Your task to perform on an android device: Clear the shopping cart on target.com. Search for "razer naga" on target.com, select the first entry, and add it to the cart. Image 0: 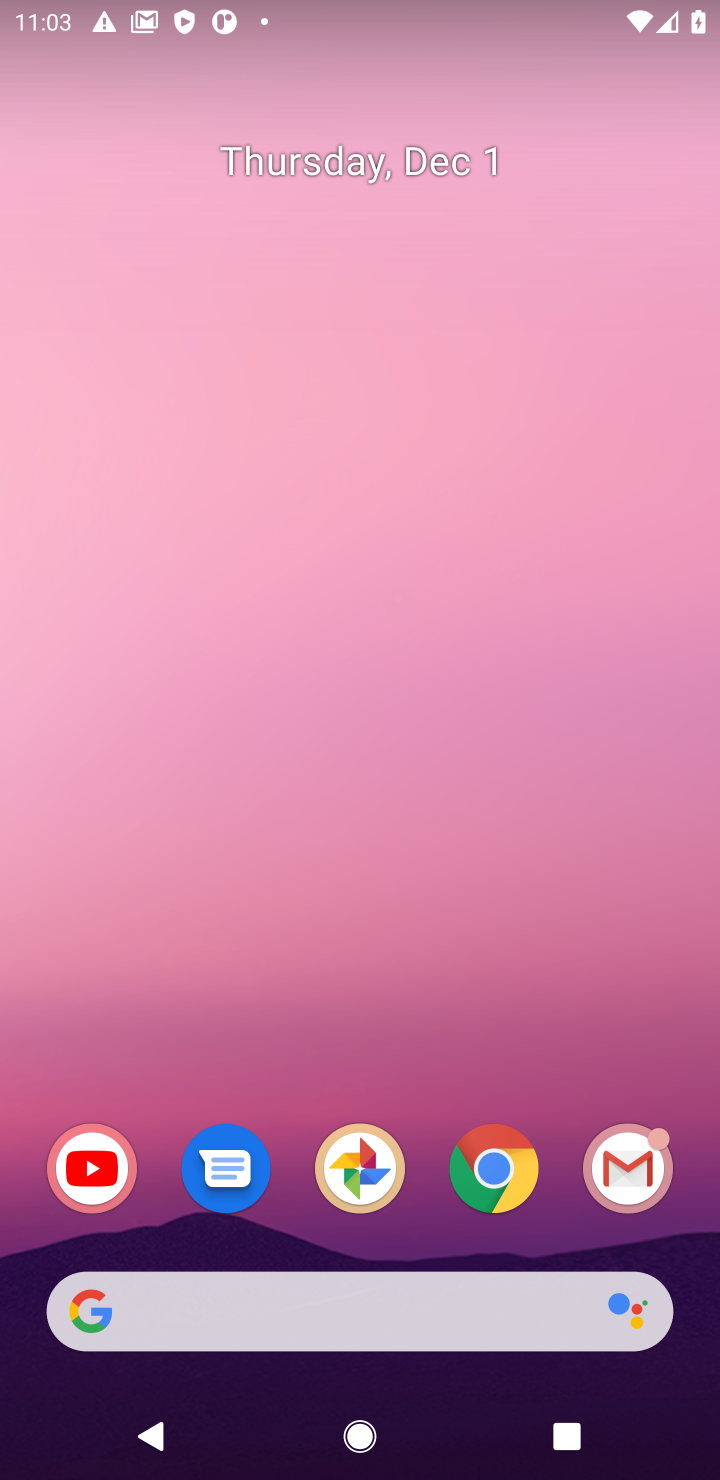
Step 0: click (505, 1179)
Your task to perform on an android device: Clear the shopping cart on target.com. Search for "razer naga" on target.com, select the first entry, and add it to the cart. Image 1: 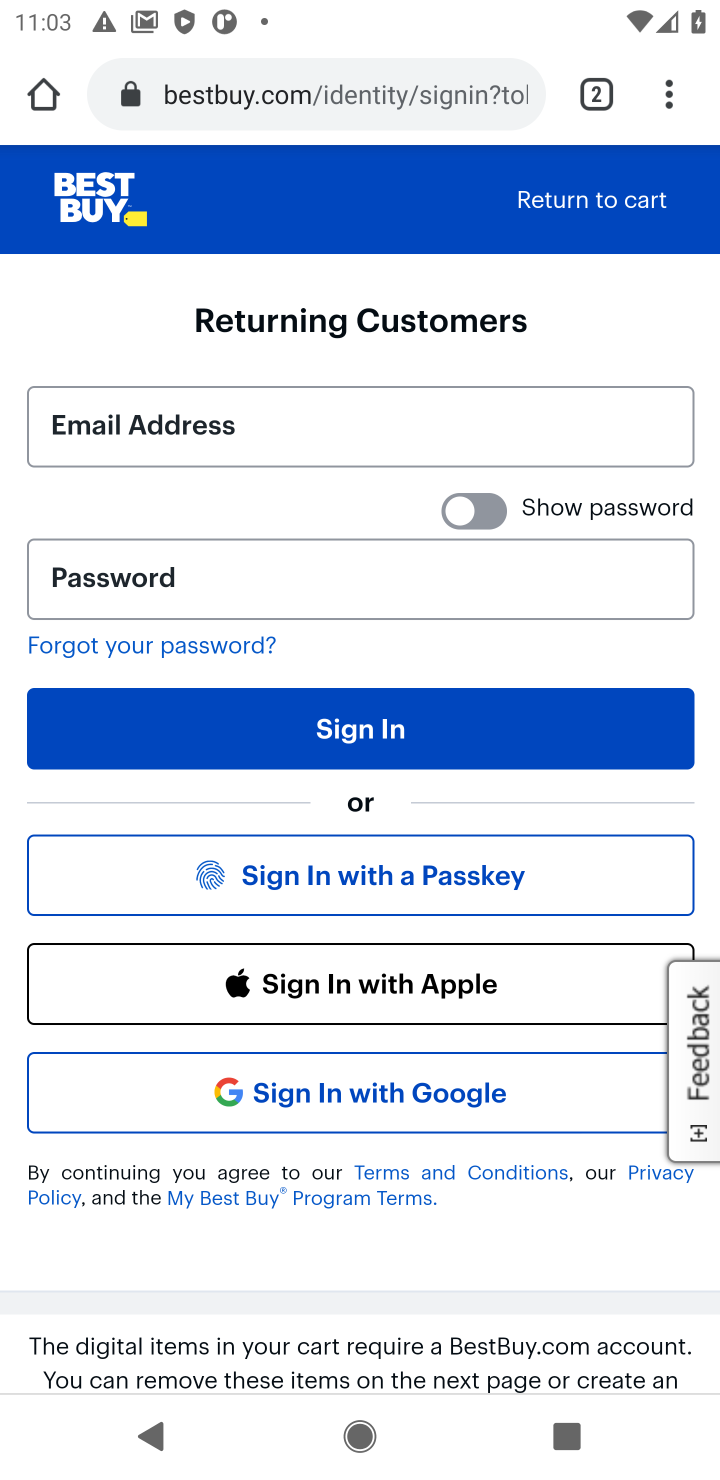
Step 1: click (287, 109)
Your task to perform on an android device: Clear the shopping cart on target.com. Search for "razer naga" on target.com, select the first entry, and add it to the cart. Image 2: 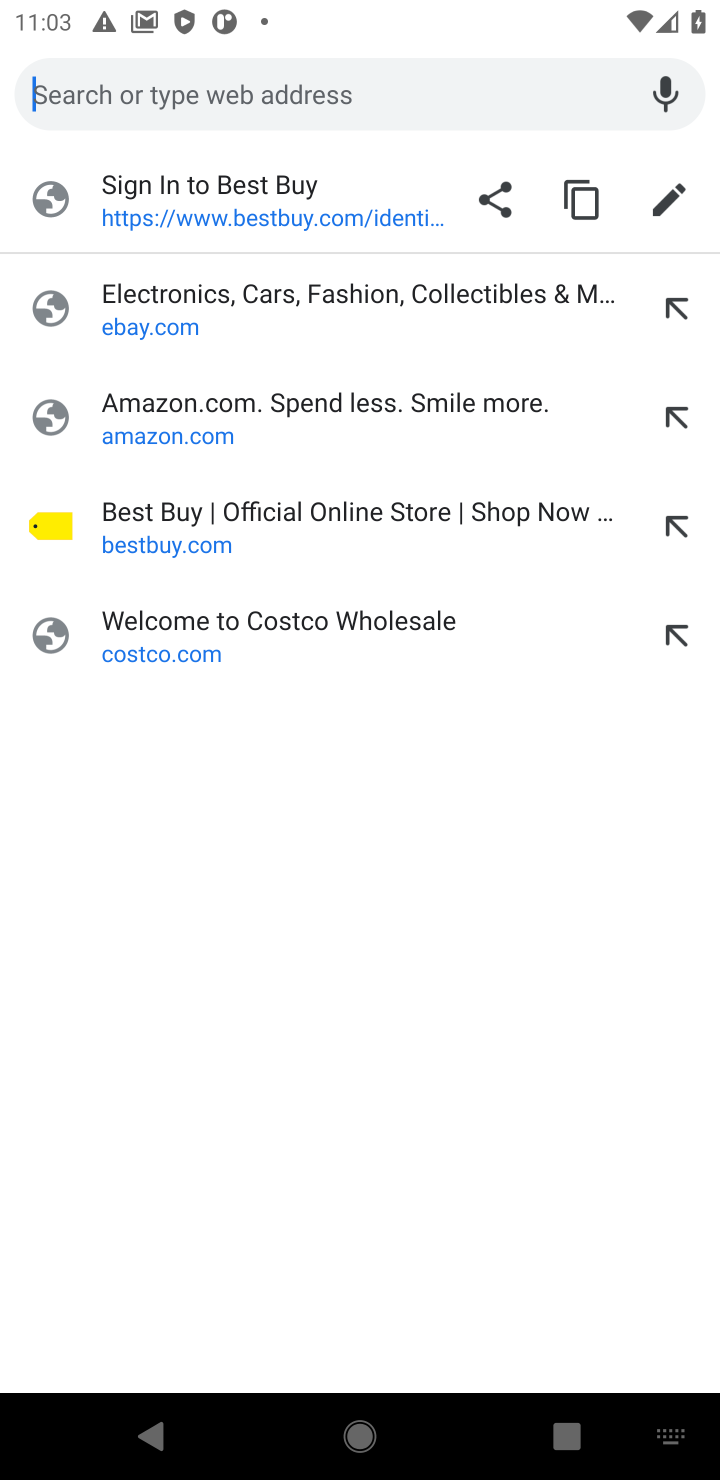
Step 2: type "target.com"
Your task to perform on an android device: Clear the shopping cart on target.com. Search for "razer naga" on target.com, select the first entry, and add it to the cart. Image 3: 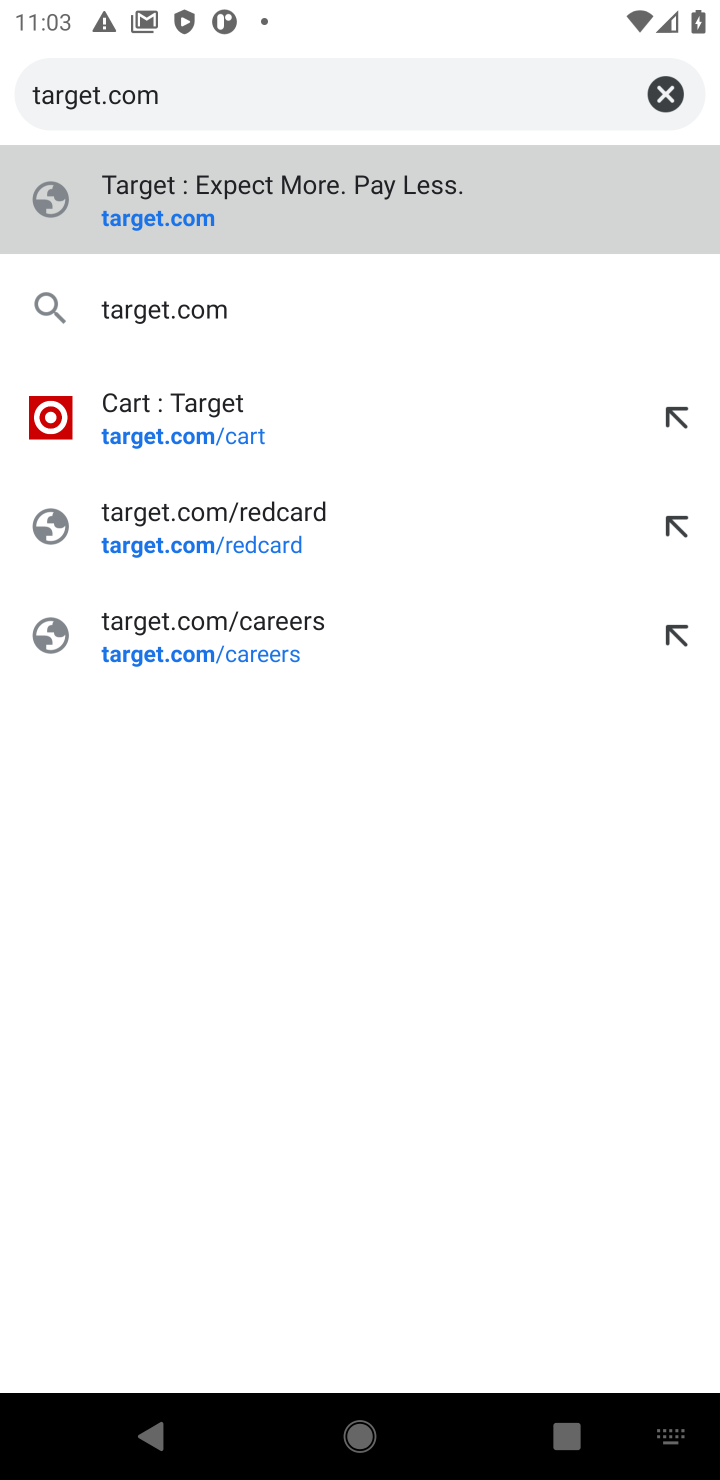
Step 3: click (183, 231)
Your task to perform on an android device: Clear the shopping cart on target.com. Search for "razer naga" on target.com, select the first entry, and add it to the cart. Image 4: 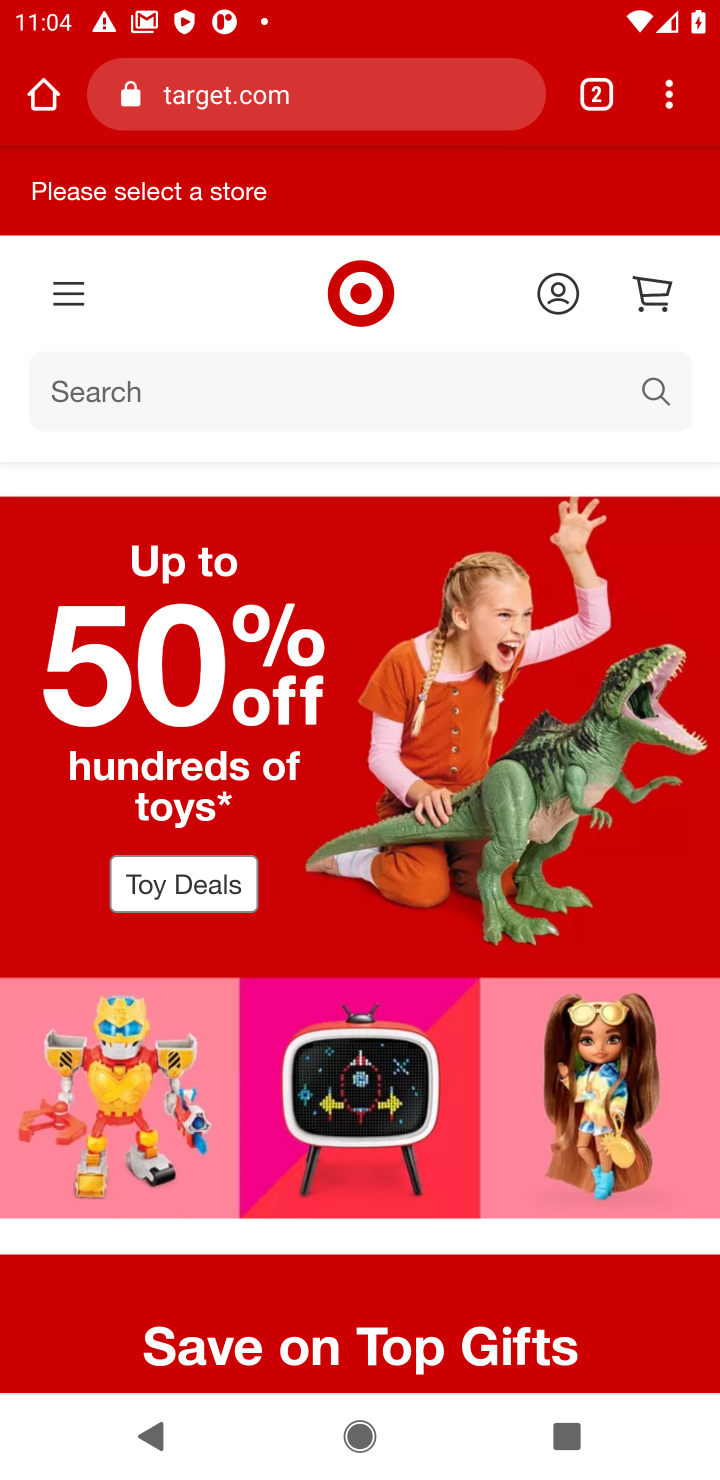
Step 4: click (644, 306)
Your task to perform on an android device: Clear the shopping cart on target.com. Search for "razer naga" on target.com, select the first entry, and add it to the cart. Image 5: 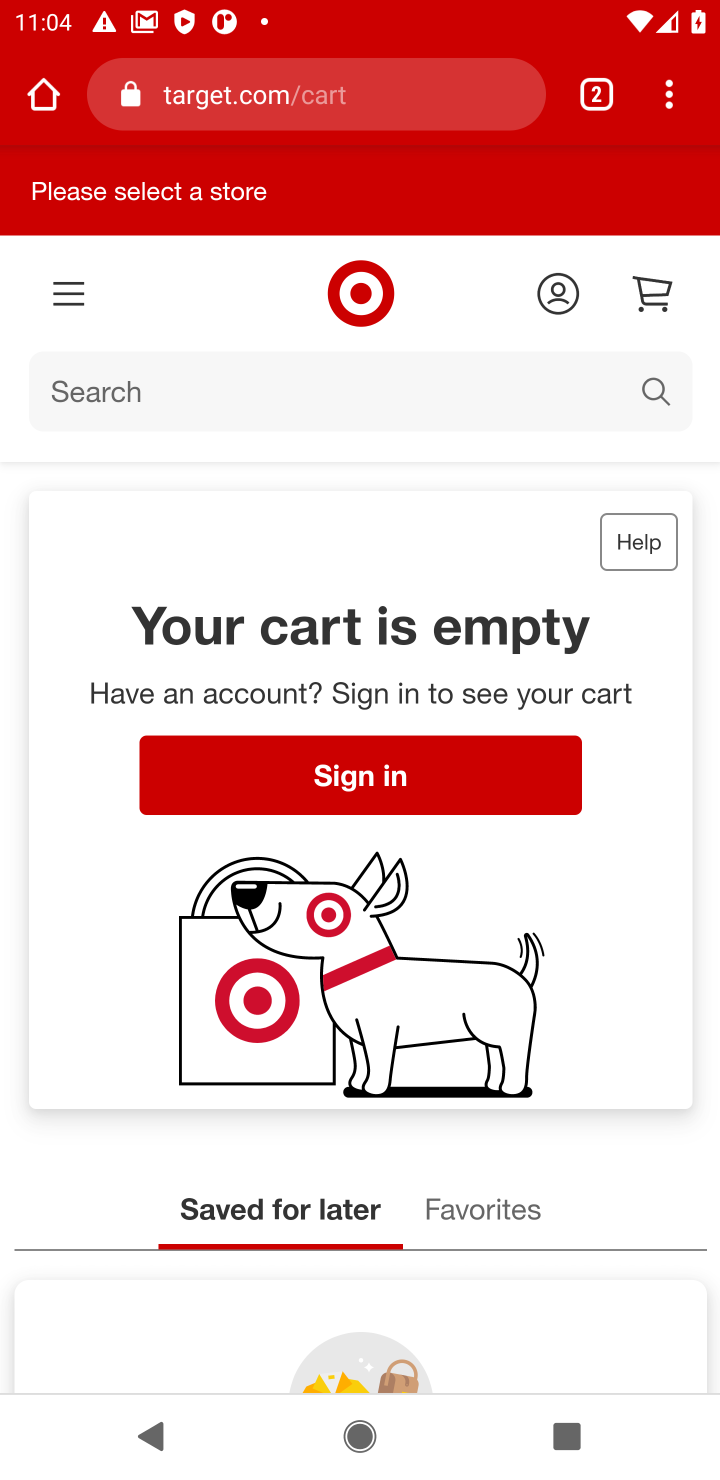
Step 5: click (69, 397)
Your task to perform on an android device: Clear the shopping cart on target.com. Search for "razer naga" on target.com, select the first entry, and add it to the cart. Image 6: 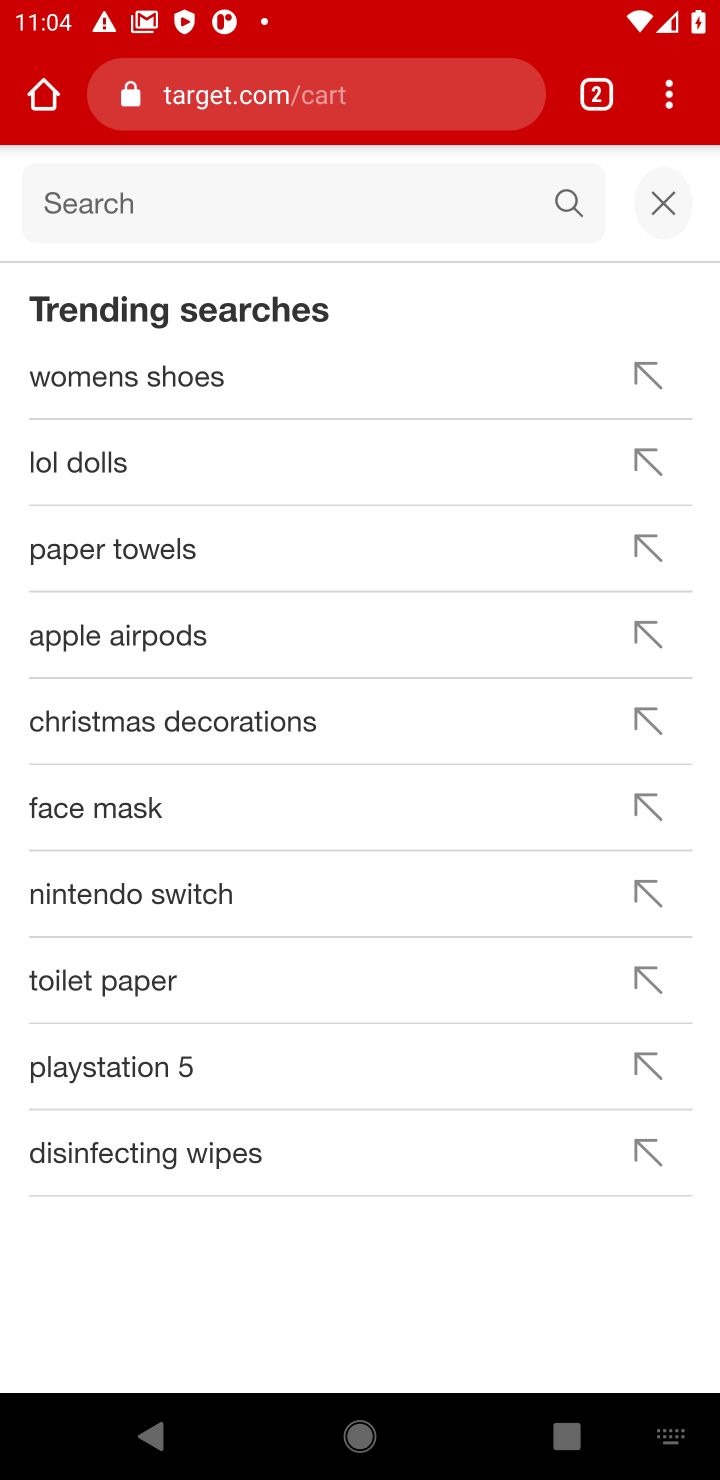
Step 6: type "razer naga"
Your task to perform on an android device: Clear the shopping cart on target.com. Search for "razer naga" on target.com, select the first entry, and add it to the cart. Image 7: 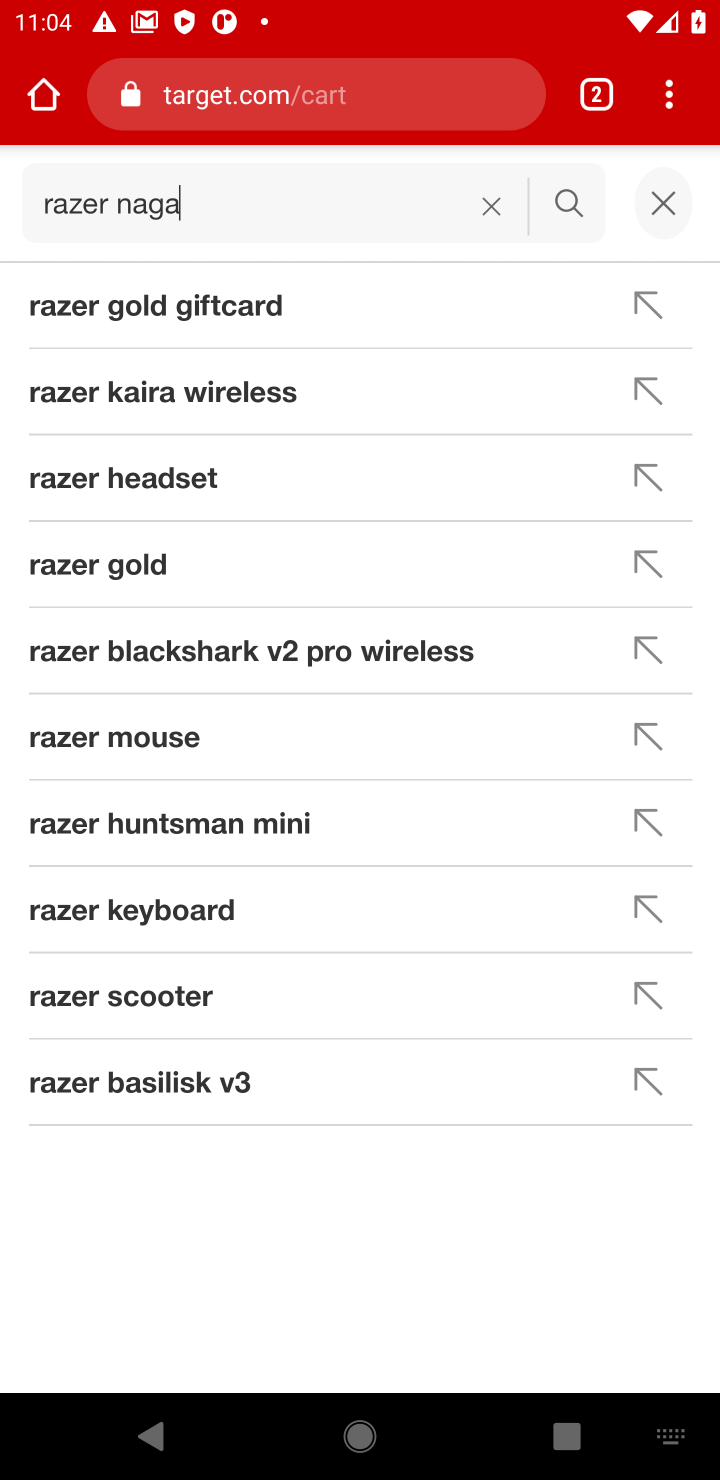
Step 7: click (563, 207)
Your task to perform on an android device: Clear the shopping cart on target.com. Search for "razer naga" on target.com, select the first entry, and add it to the cart. Image 8: 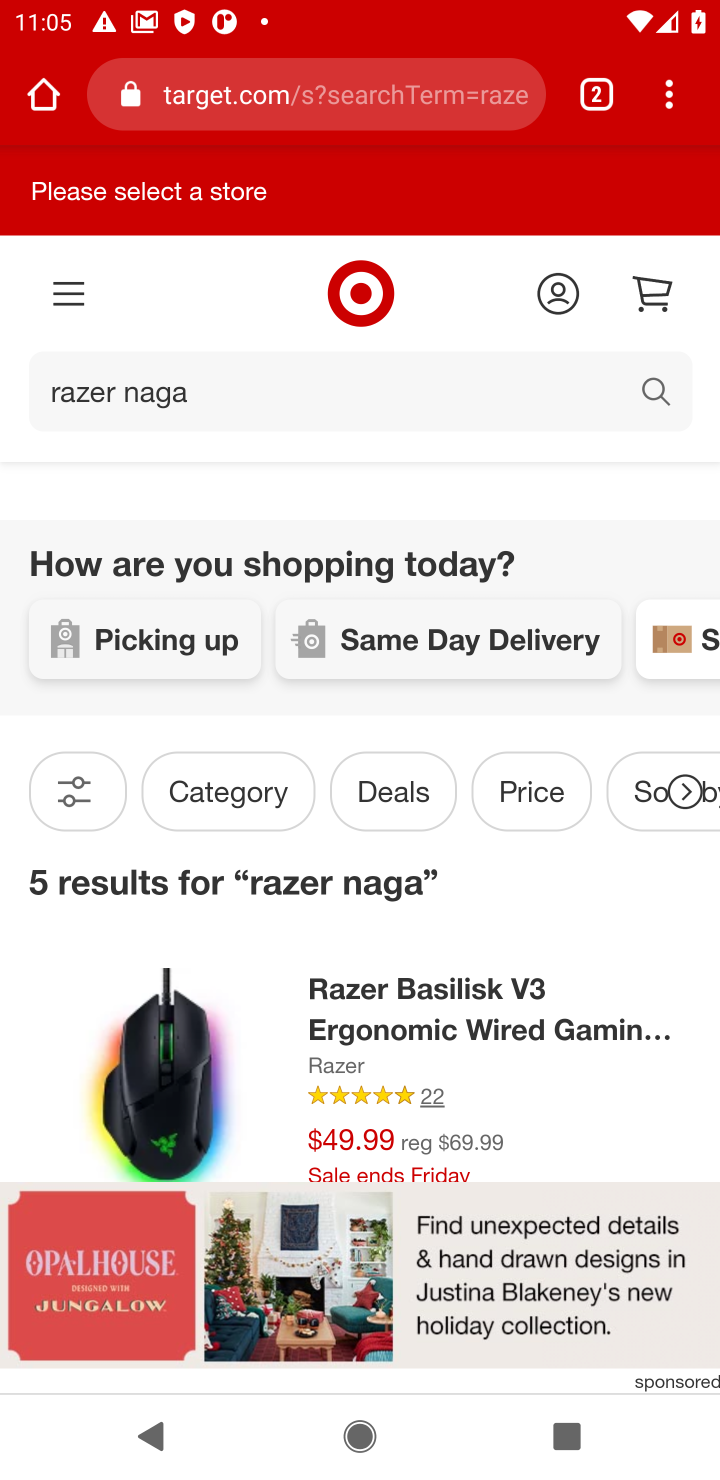
Step 8: task complete